Your task to perform on an android device: open chrome privacy settings Image 0: 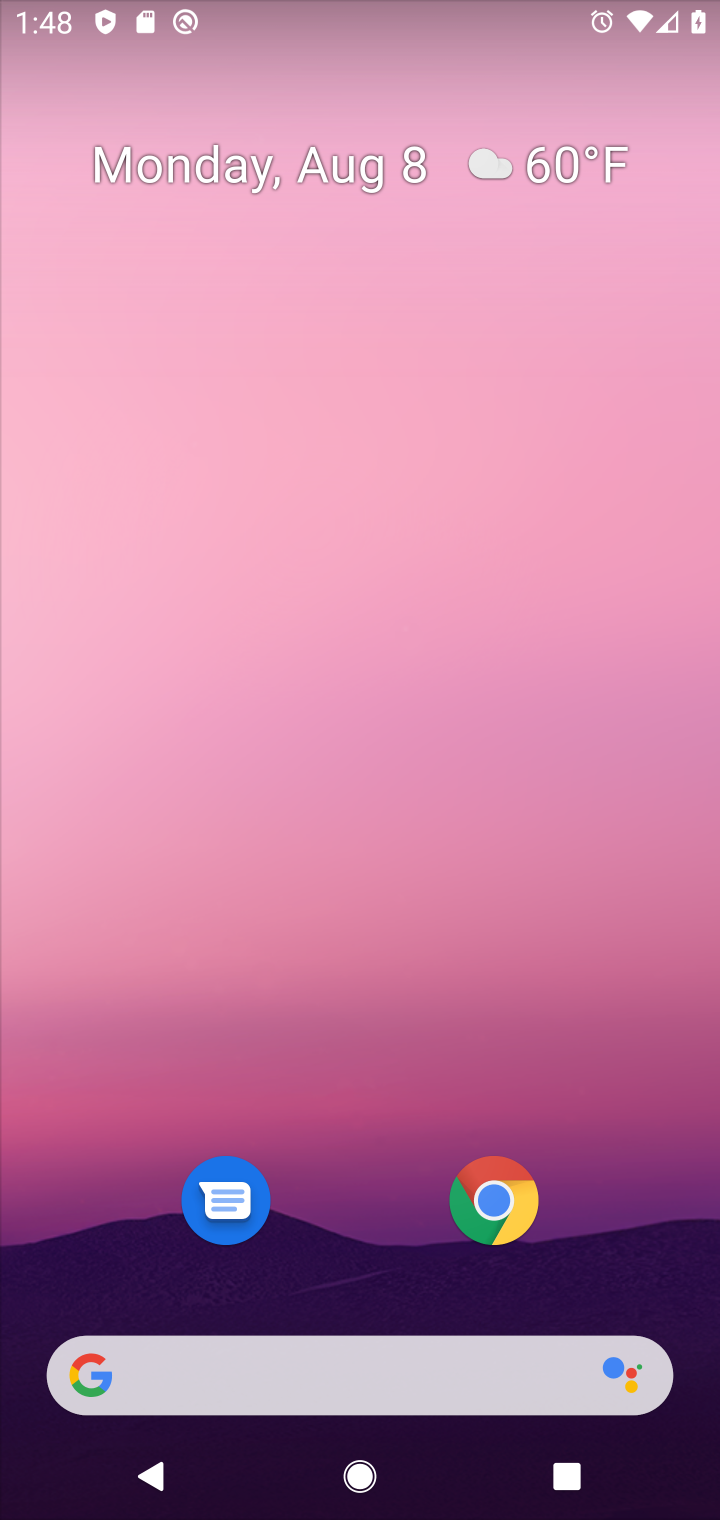
Step 0: click (496, 1199)
Your task to perform on an android device: open chrome privacy settings Image 1: 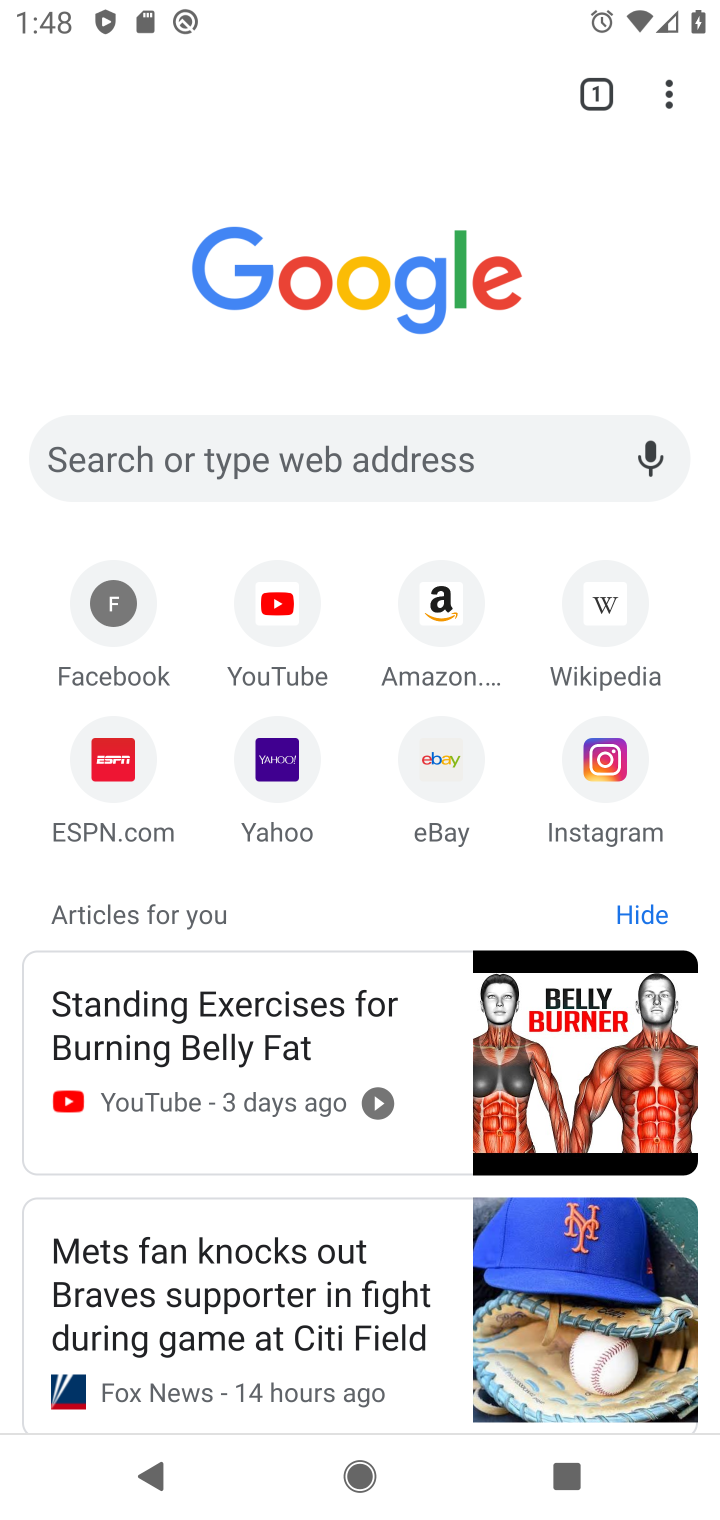
Step 1: click (671, 95)
Your task to perform on an android device: open chrome privacy settings Image 2: 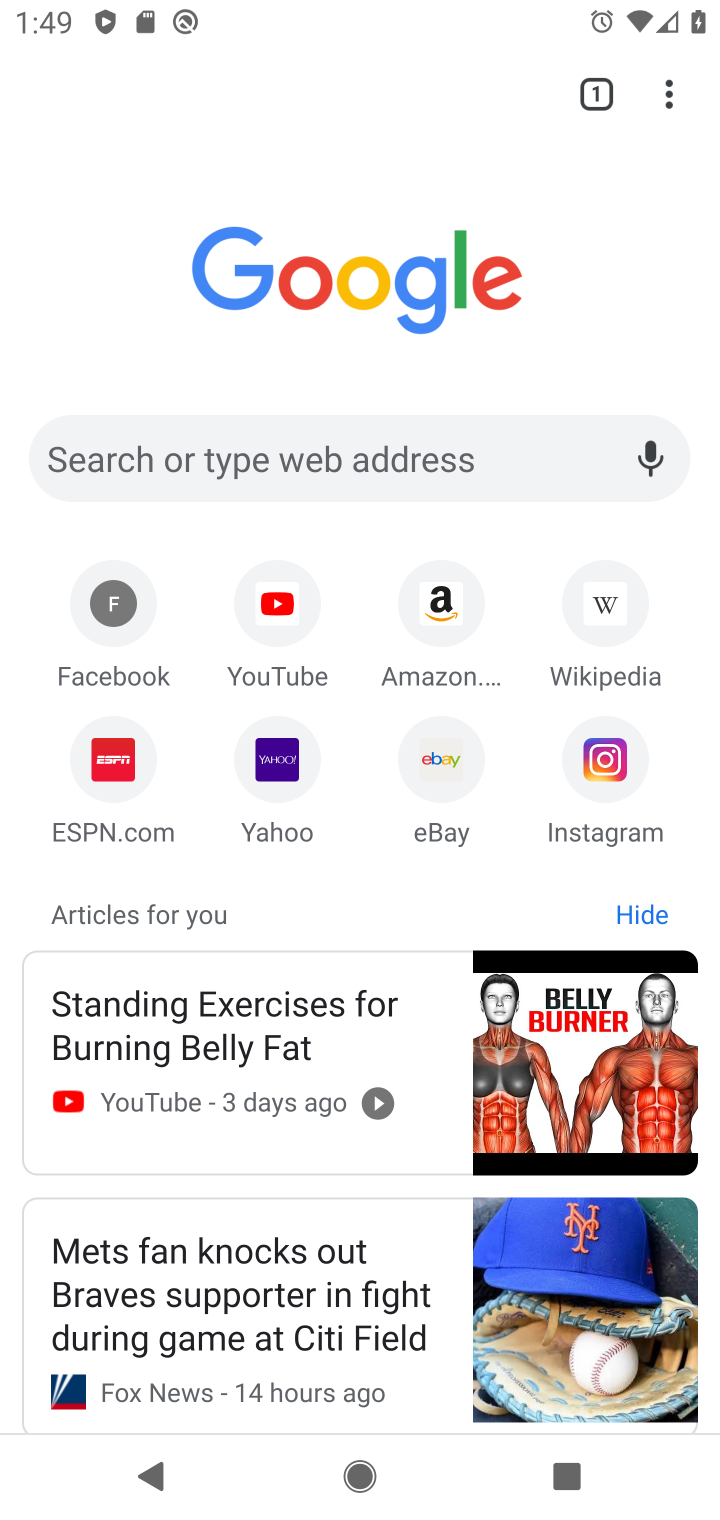
Step 2: click (674, 76)
Your task to perform on an android device: open chrome privacy settings Image 3: 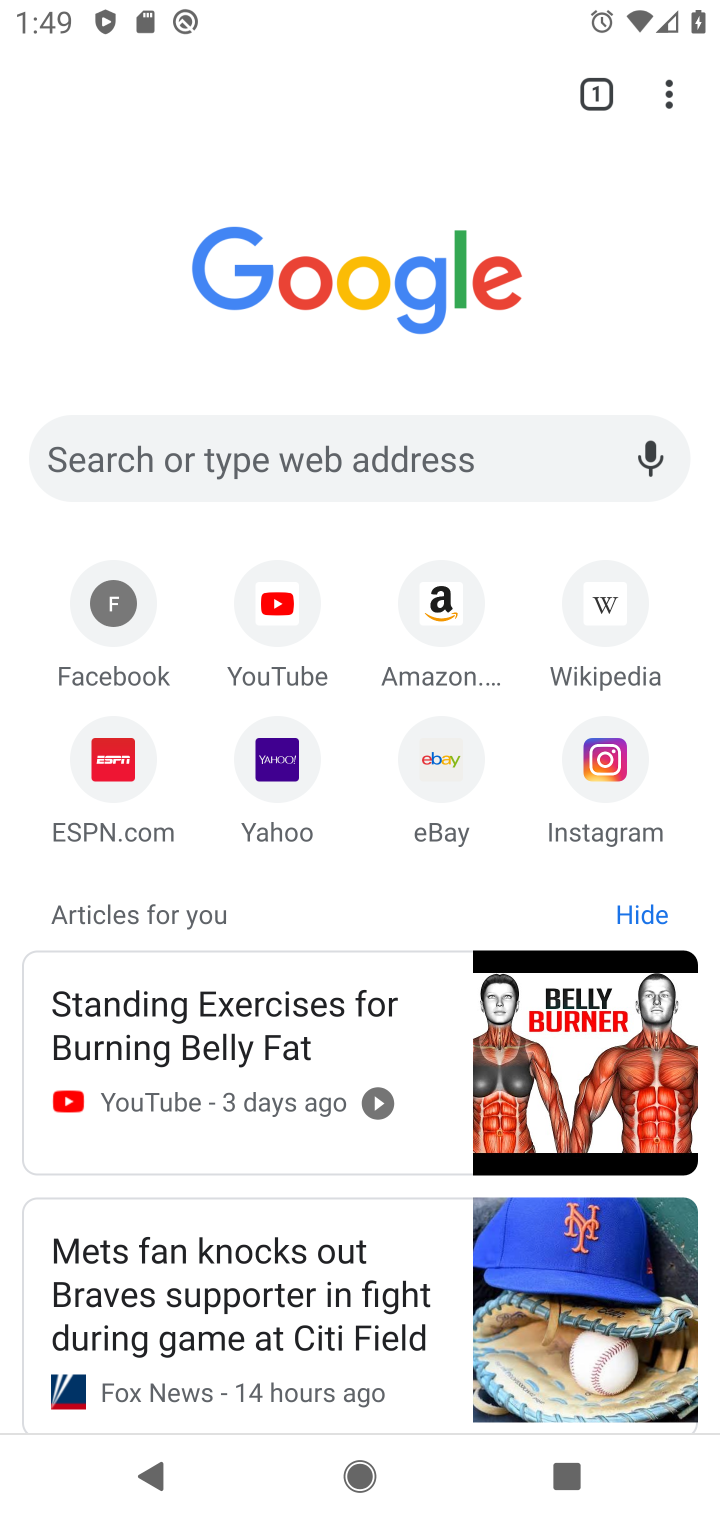
Step 3: click (669, 77)
Your task to perform on an android device: open chrome privacy settings Image 4: 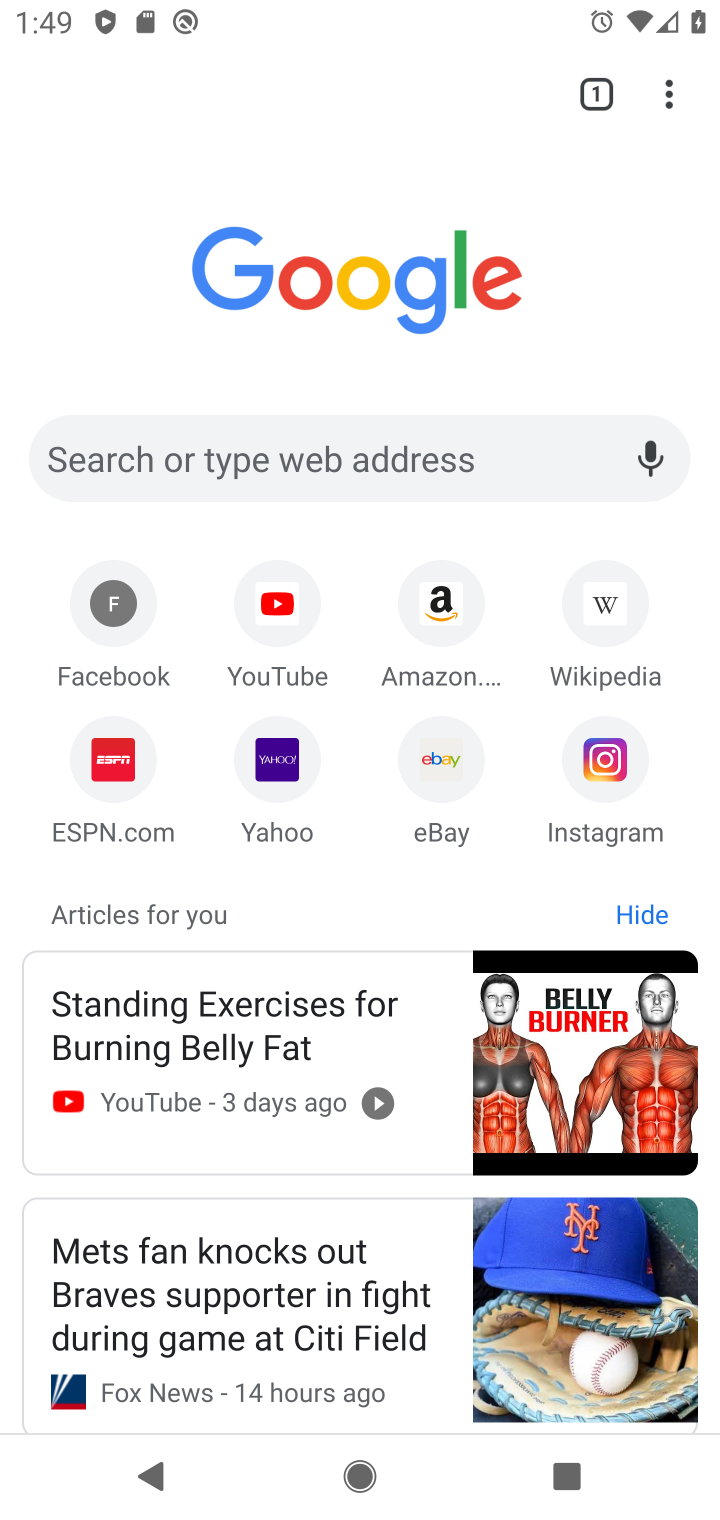
Step 4: click (674, 95)
Your task to perform on an android device: open chrome privacy settings Image 5: 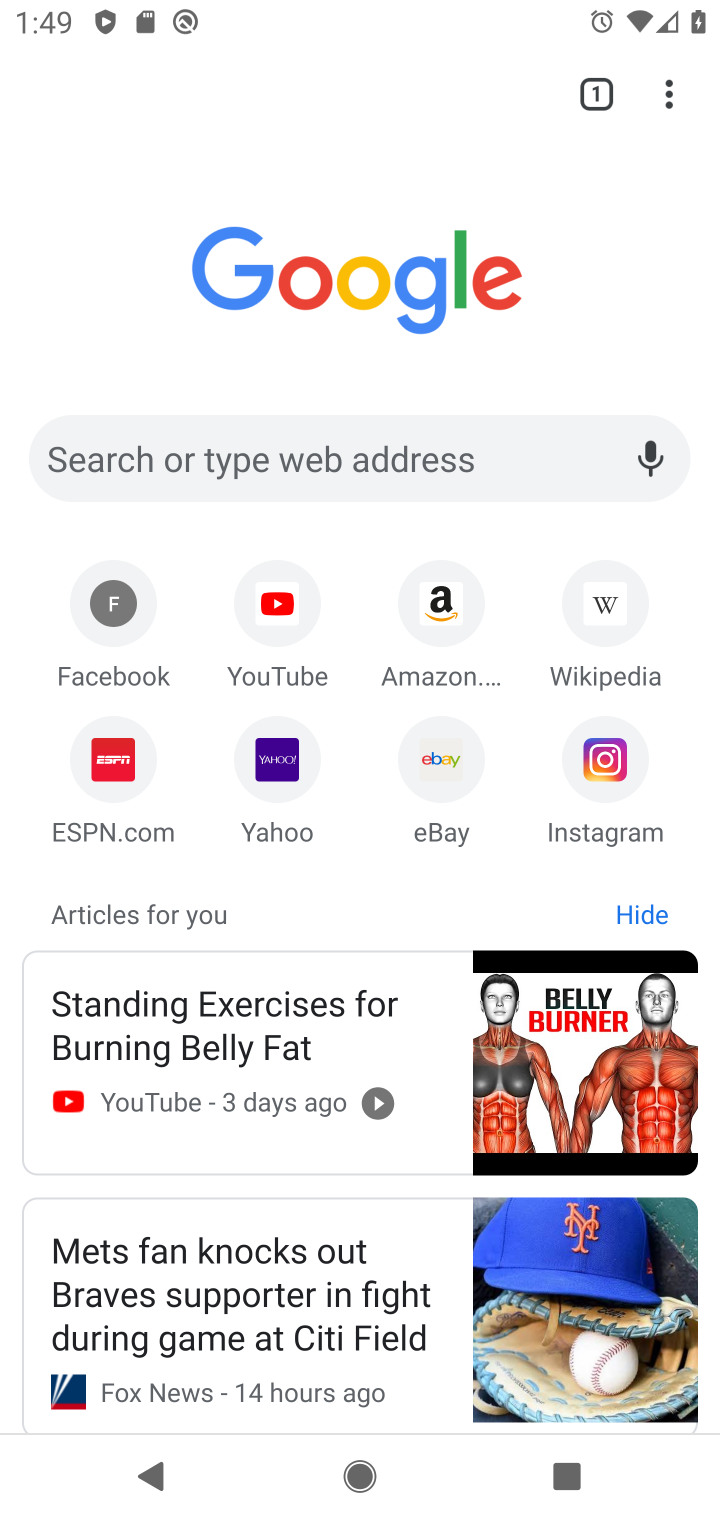
Step 5: click (657, 101)
Your task to perform on an android device: open chrome privacy settings Image 6: 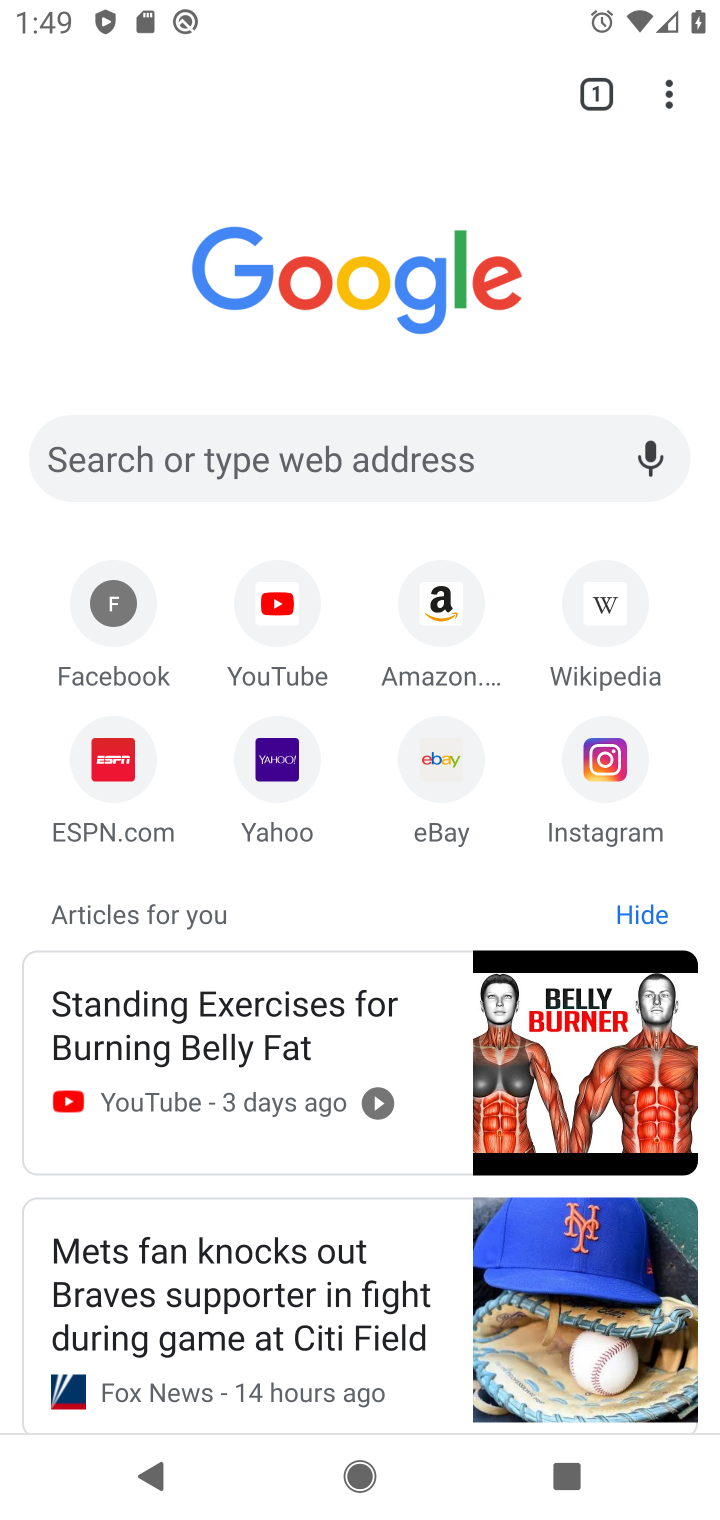
Step 6: click (674, 97)
Your task to perform on an android device: open chrome privacy settings Image 7: 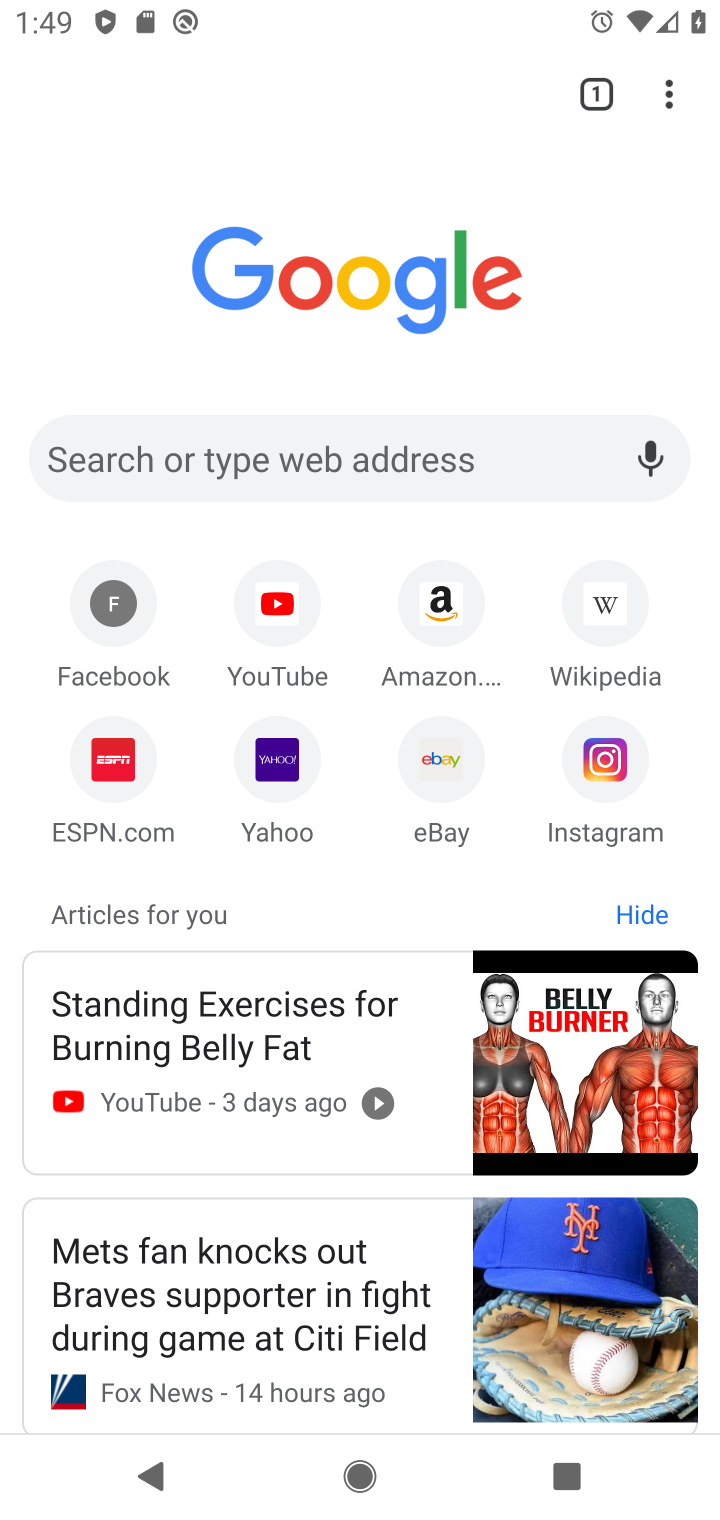
Step 7: click (671, 89)
Your task to perform on an android device: open chrome privacy settings Image 8: 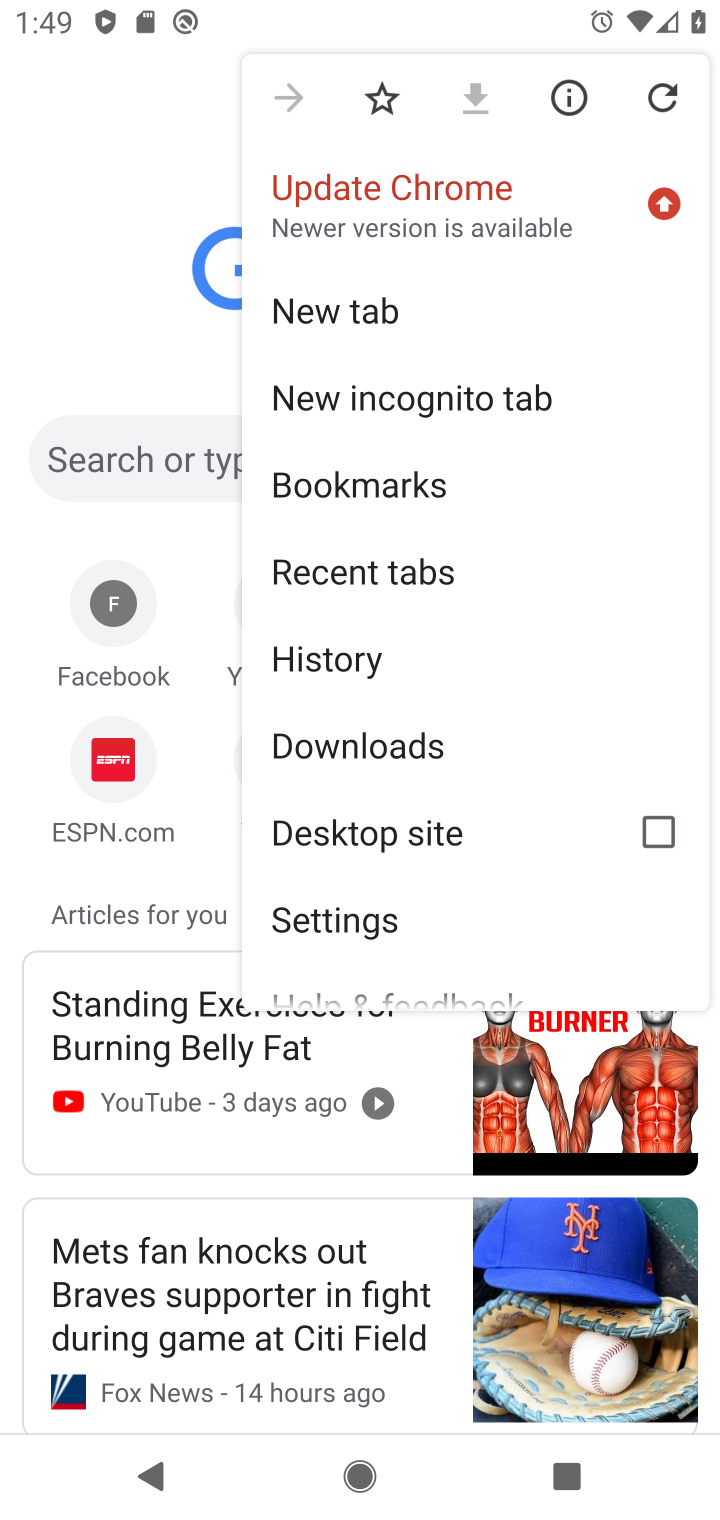
Step 8: click (371, 910)
Your task to perform on an android device: open chrome privacy settings Image 9: 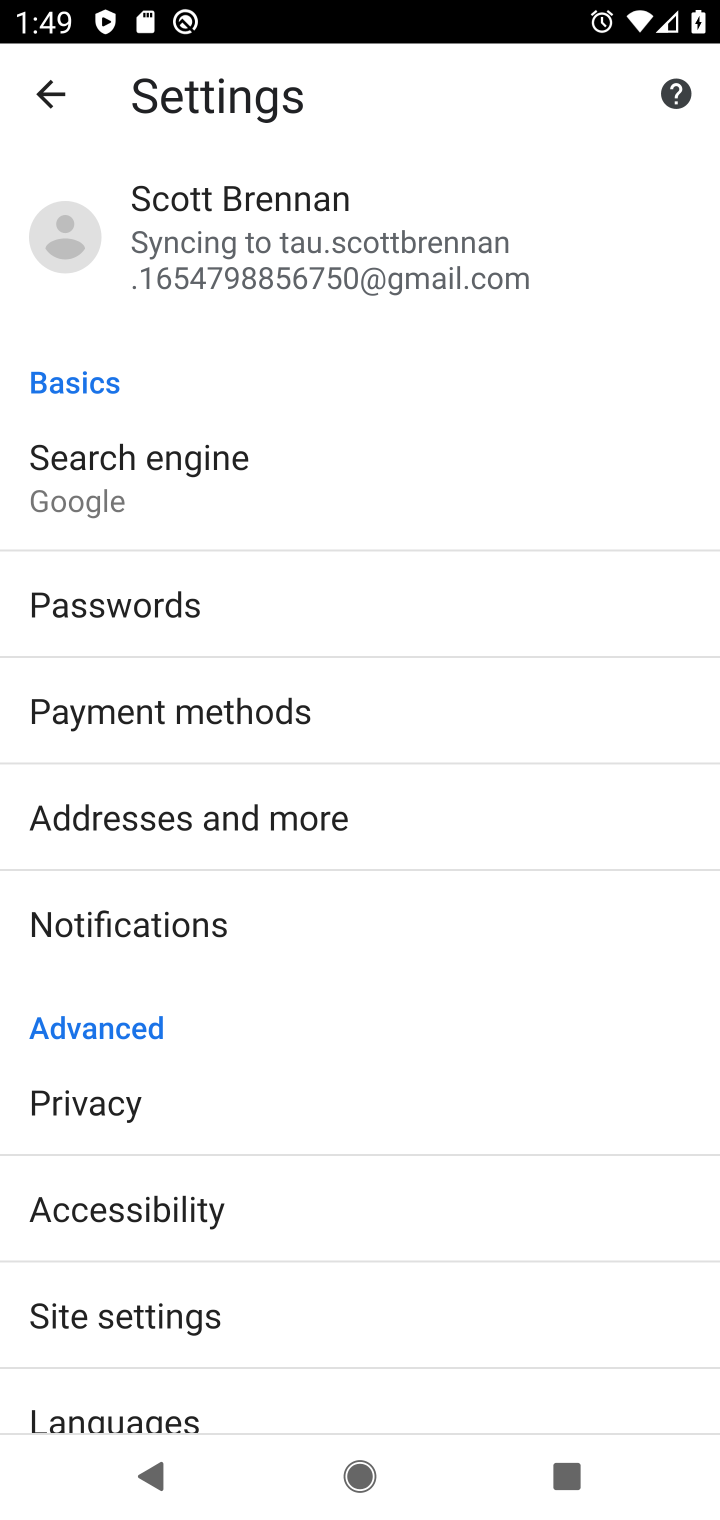
Step 9: click (166, 1106)
Your task to perform on an android device: open chrome privacy settings Image 10: 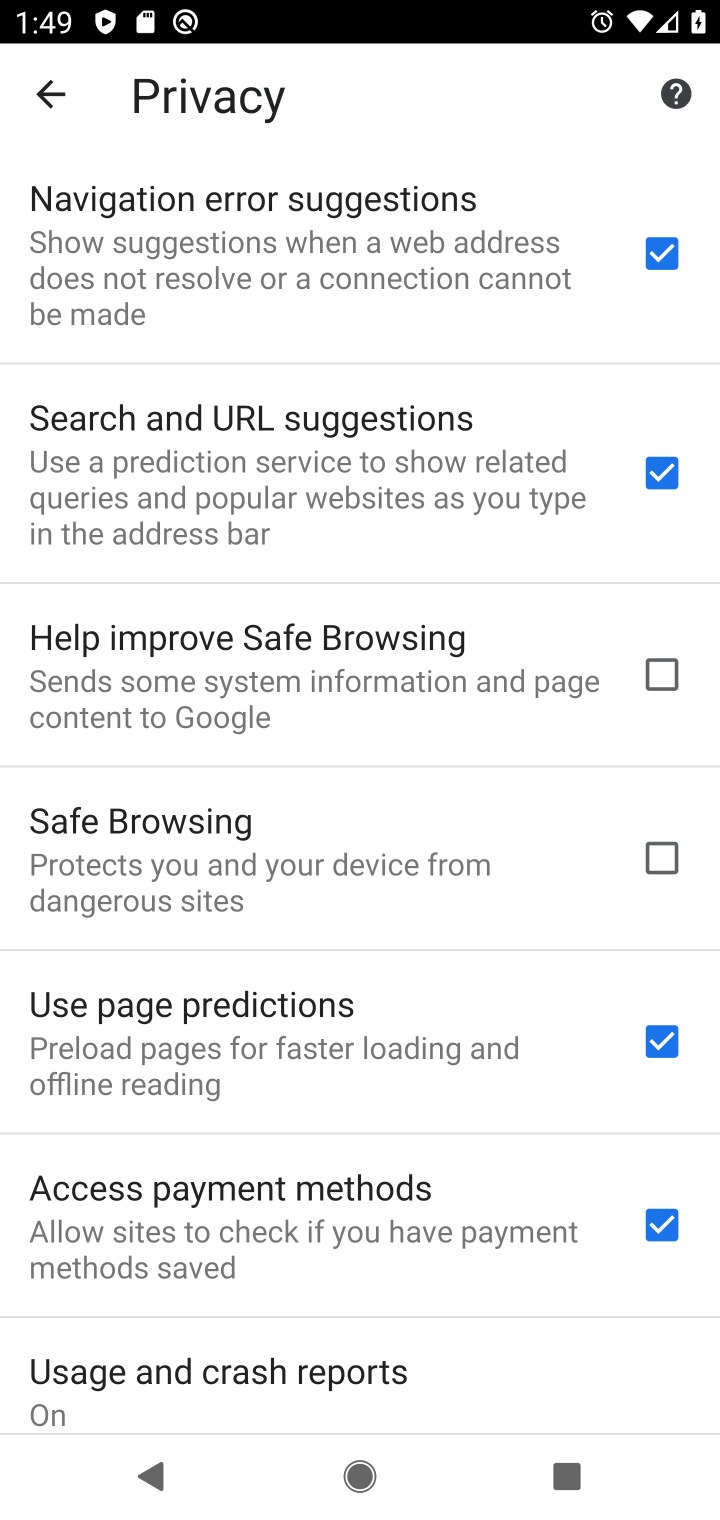
Step 10: task complete